Your task to perform on an android device: set an alarm Image 0: 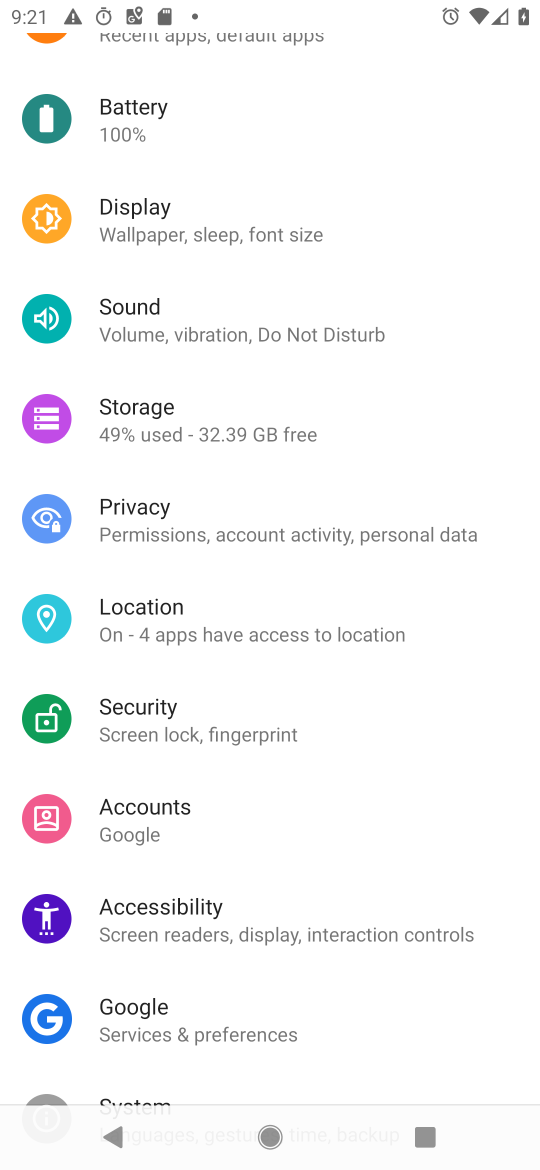
Step 0: press home button
Your task to perform on an android device: set an alarm Image 1: 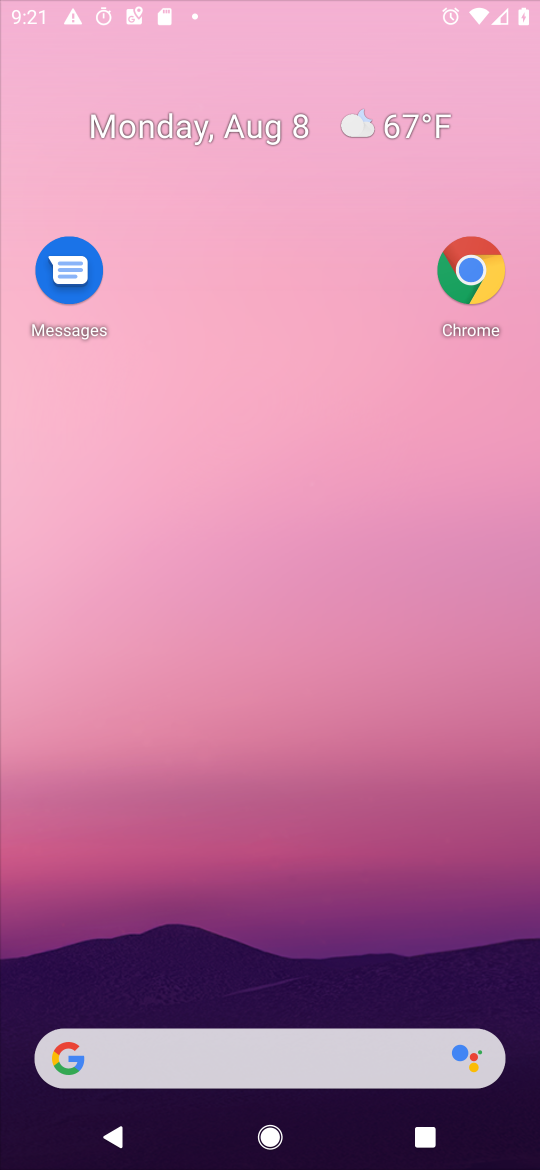
Step 1: drag from (245, 990) to (418, 324)
Your task to perform on an android device: set an alarm Image 2: 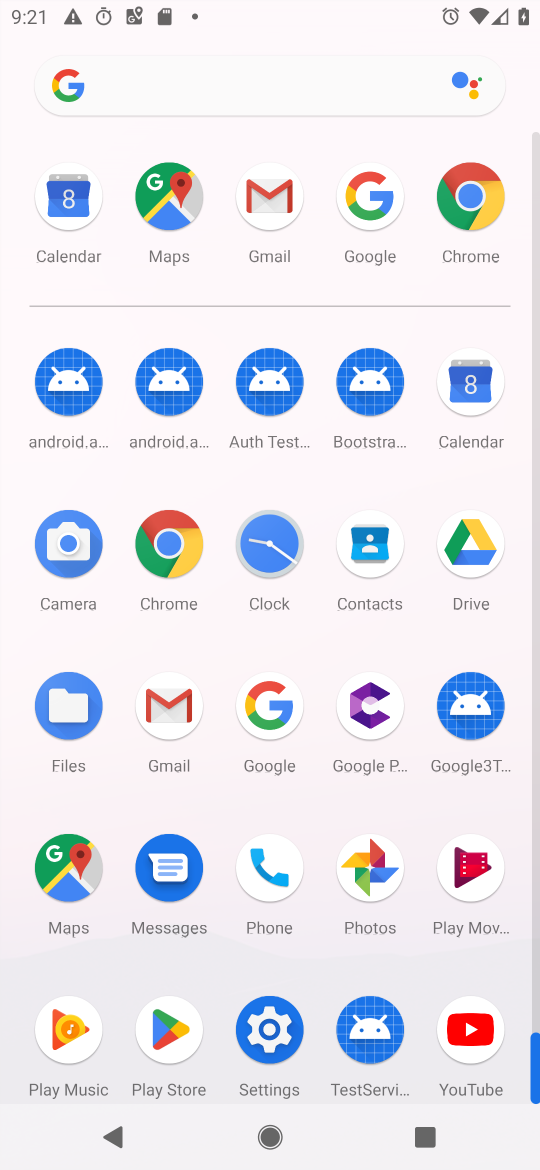
Step 2: click (252, 532)
Your task to perform on an android device: set an alarm Image 3: 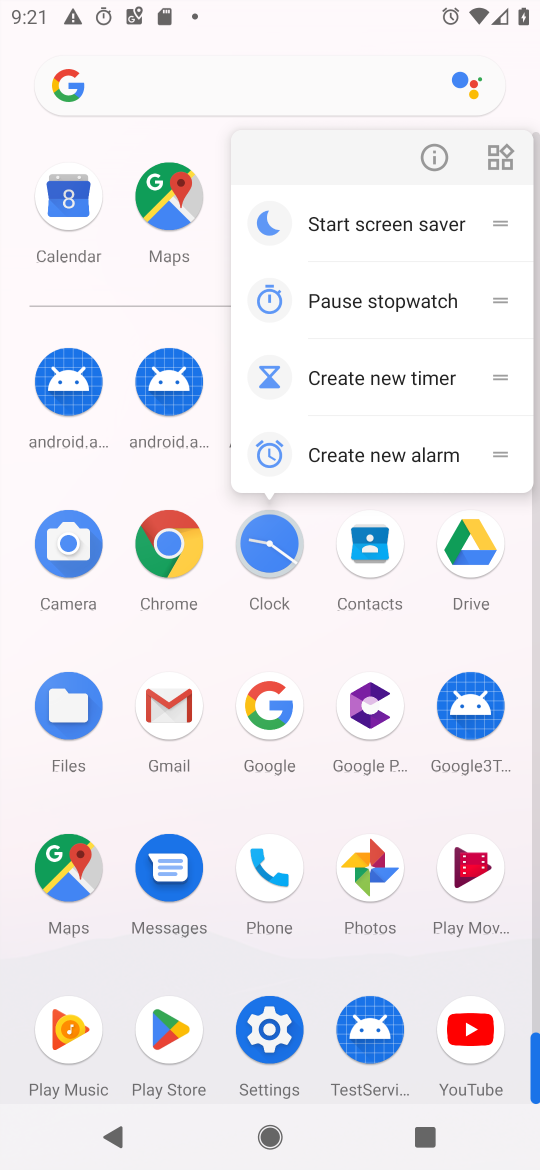
Step 3: click (441, 176)
Your task to perform on an android device: set an alarm Image 4: 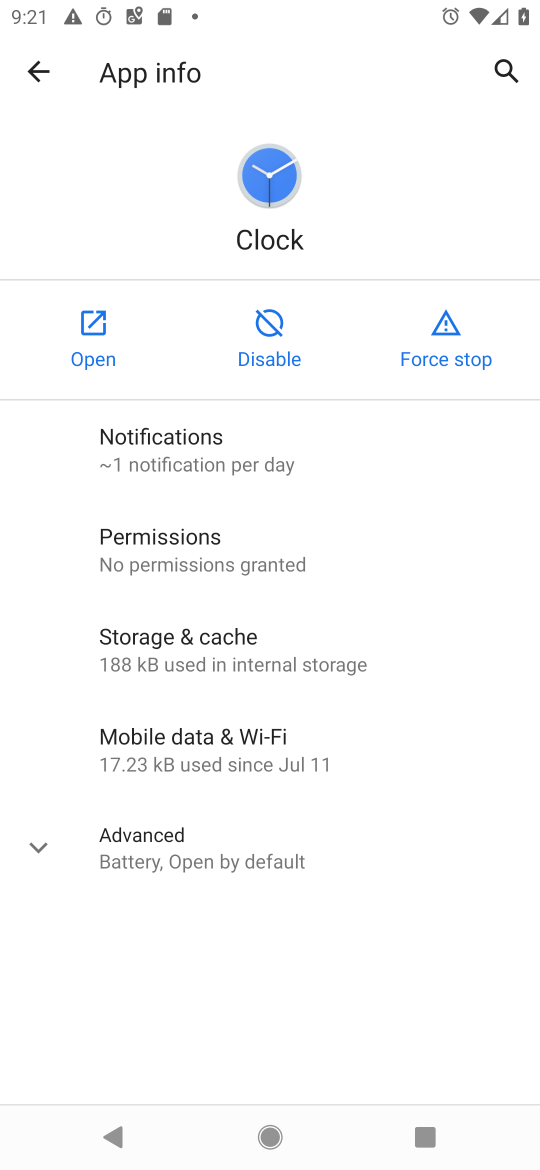
Step 4: click (92, 352)
Your task to perform on an android device: set an alarm Image 5: 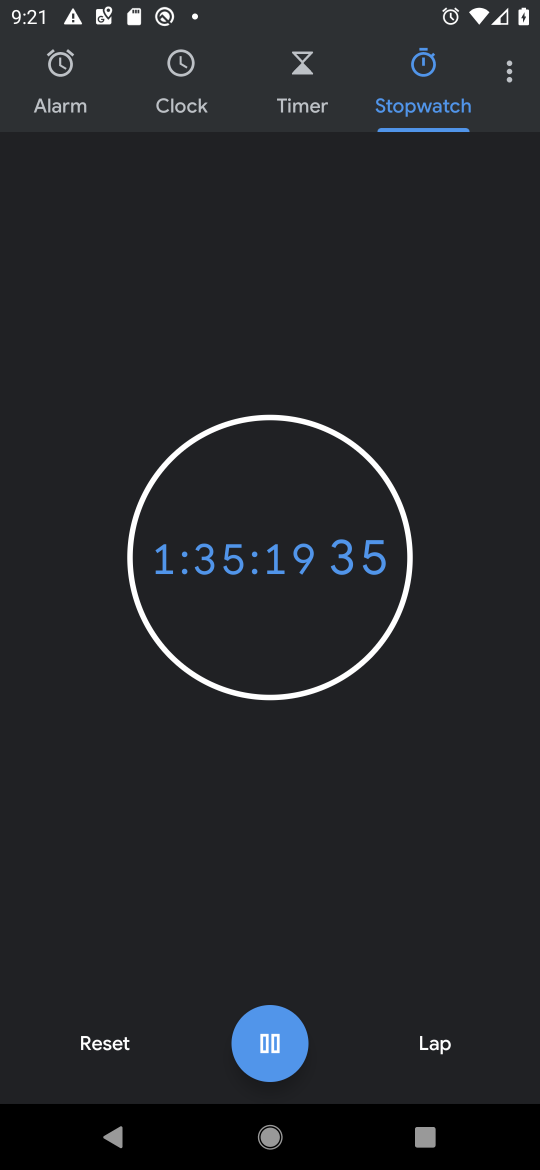
Step 5: click (72, 95)
Your task to perform on an android device: set an alarm Image 6: 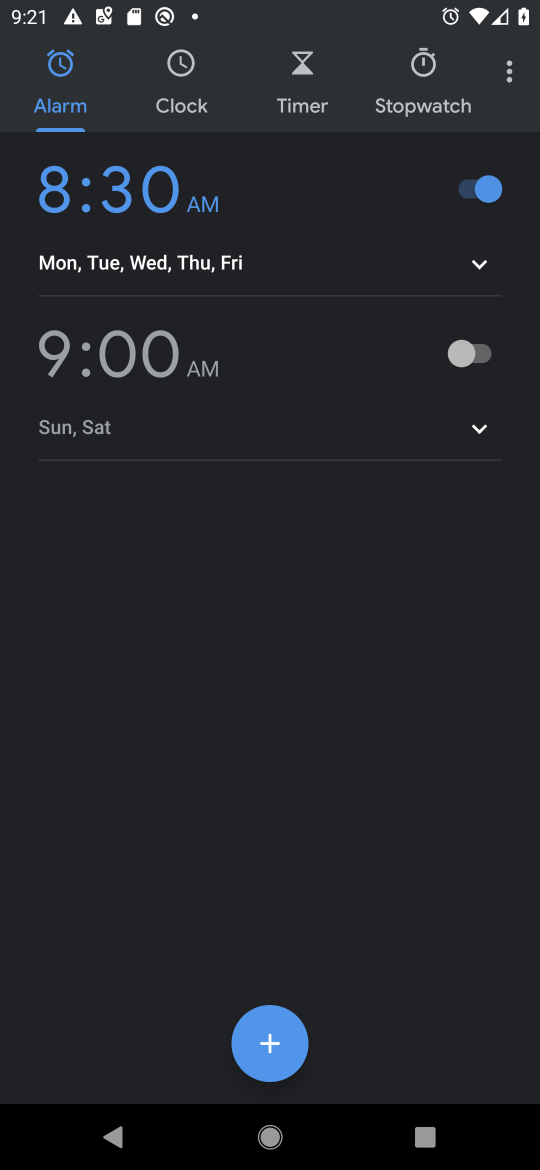
Step 6: click (474, 366)
Your task to perform on an android device: set an alarm Image 7: 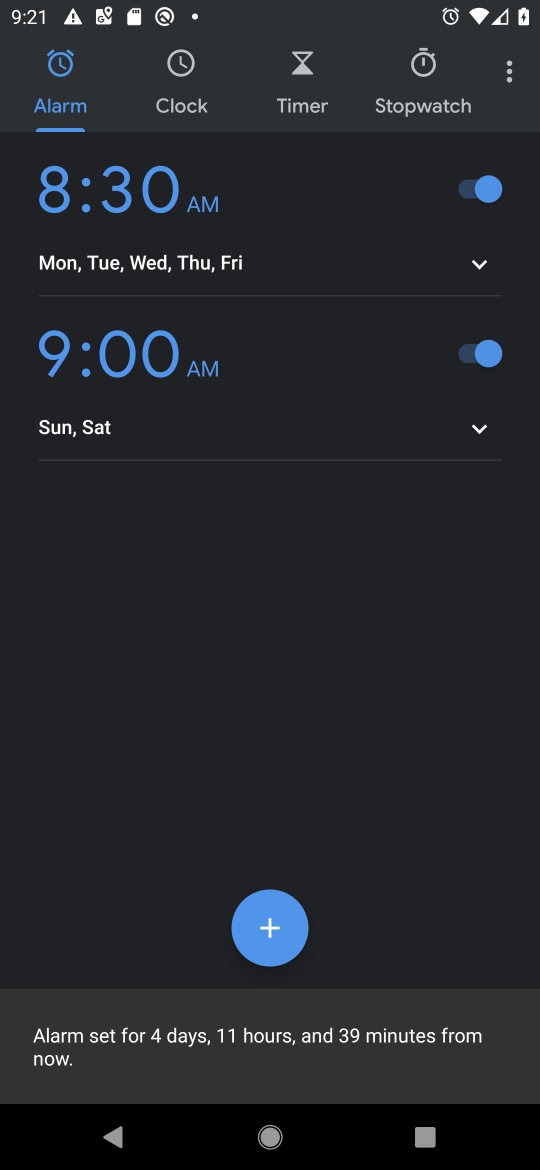
Step 7: task complete